Your task to perform on an android device: What's on my calendar for the rest of the month? Image 0: 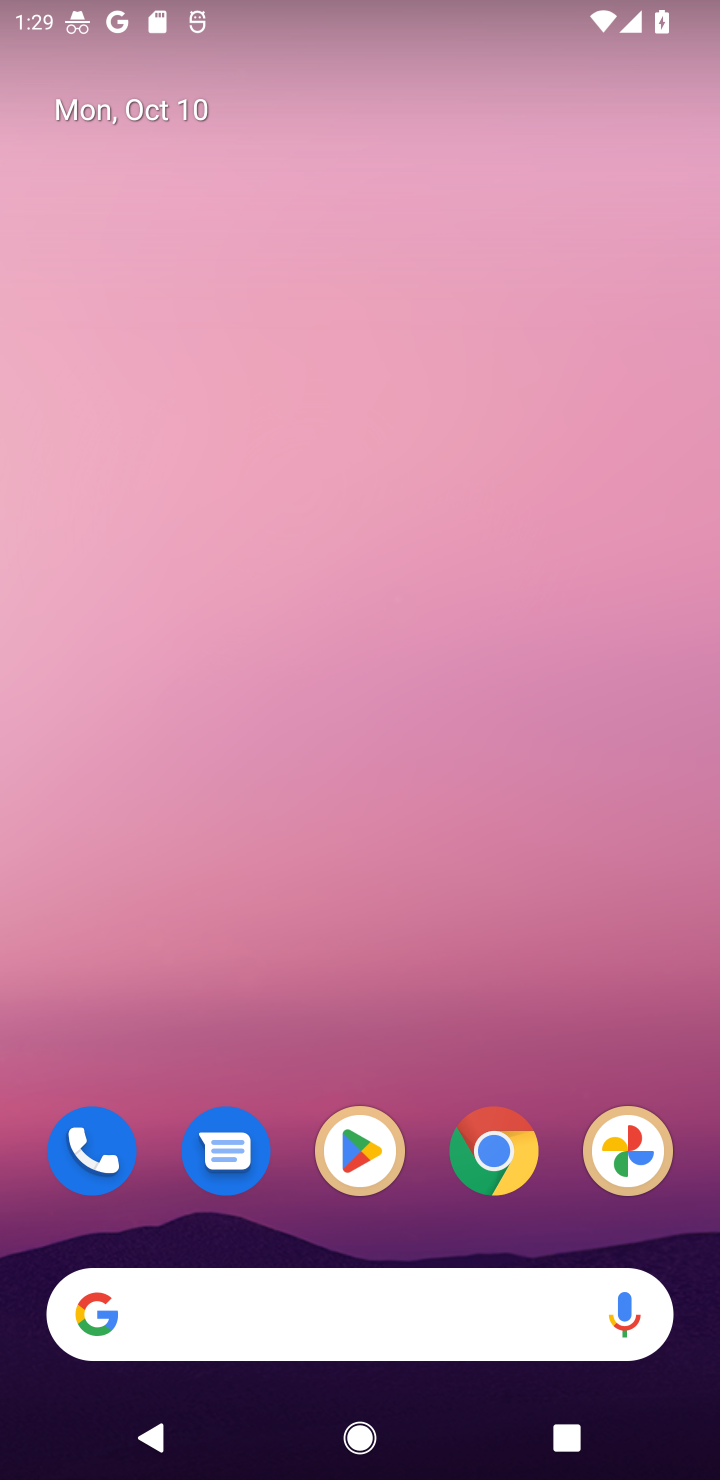
Step 0: drag from (311, 1236) to (311, 625)
Your task to perform on an android device: What's on my calendar for the rest of the month? Image 1: 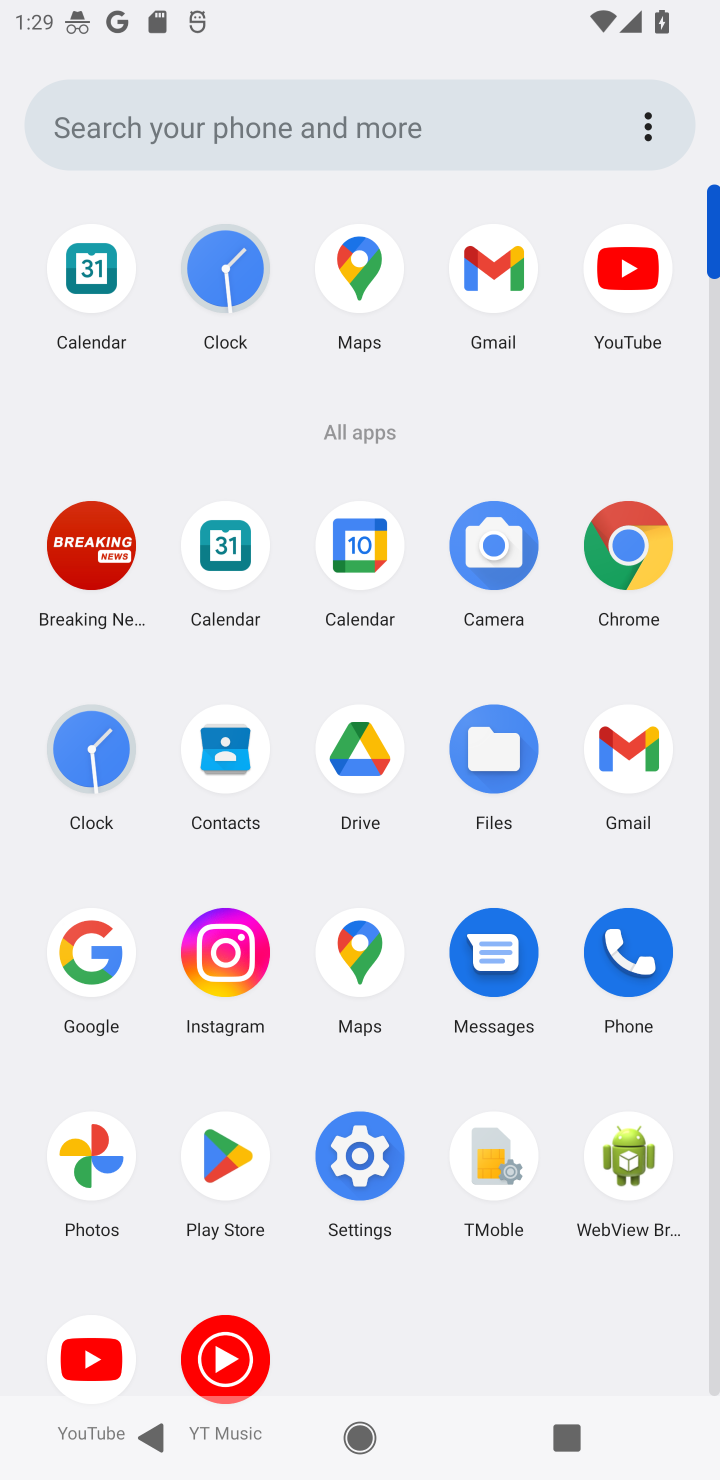
Step 1: click (363, 541)
Your task to perform on an android device: What's on my calendar for the rest of the month? Image 2: 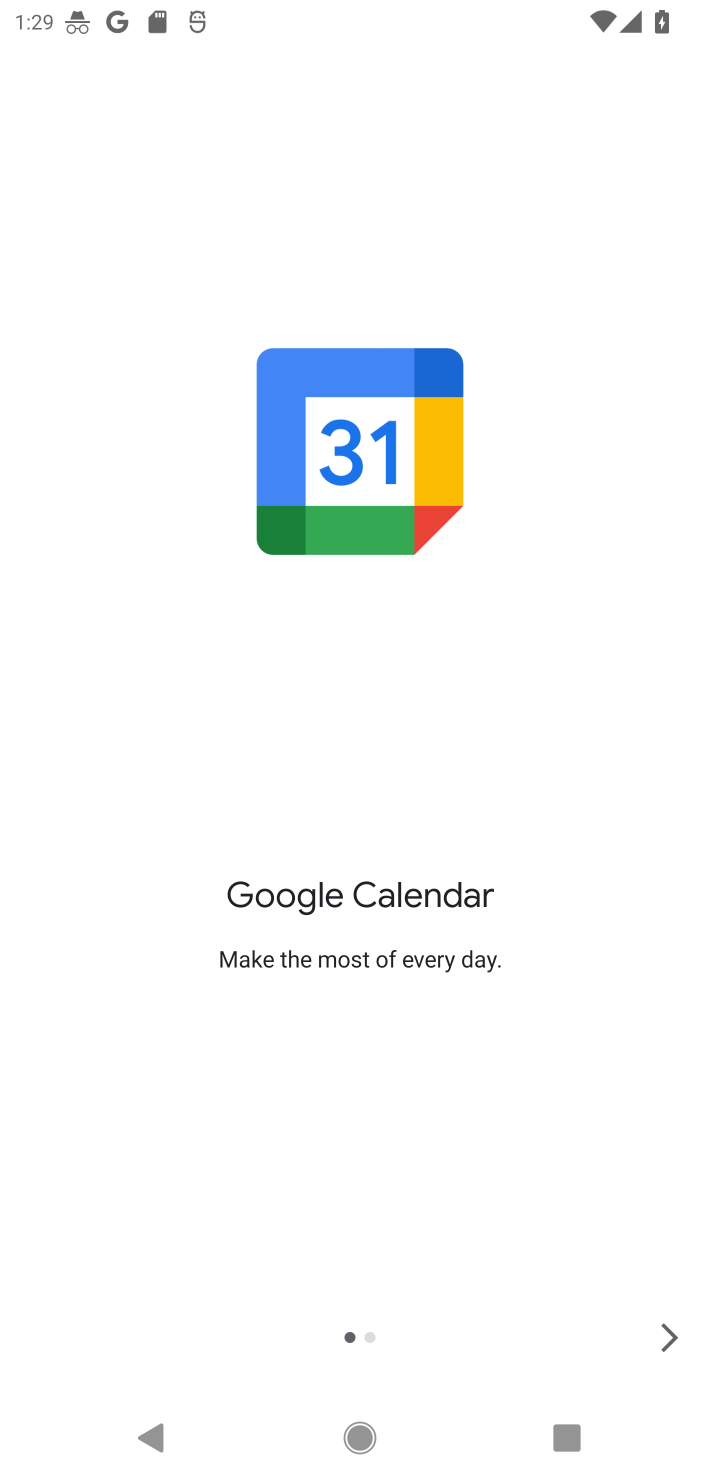
Step 2: click (668, 1339)
Your task to perform on an android device: What's on my calendar for the rest of the month? Image 3: 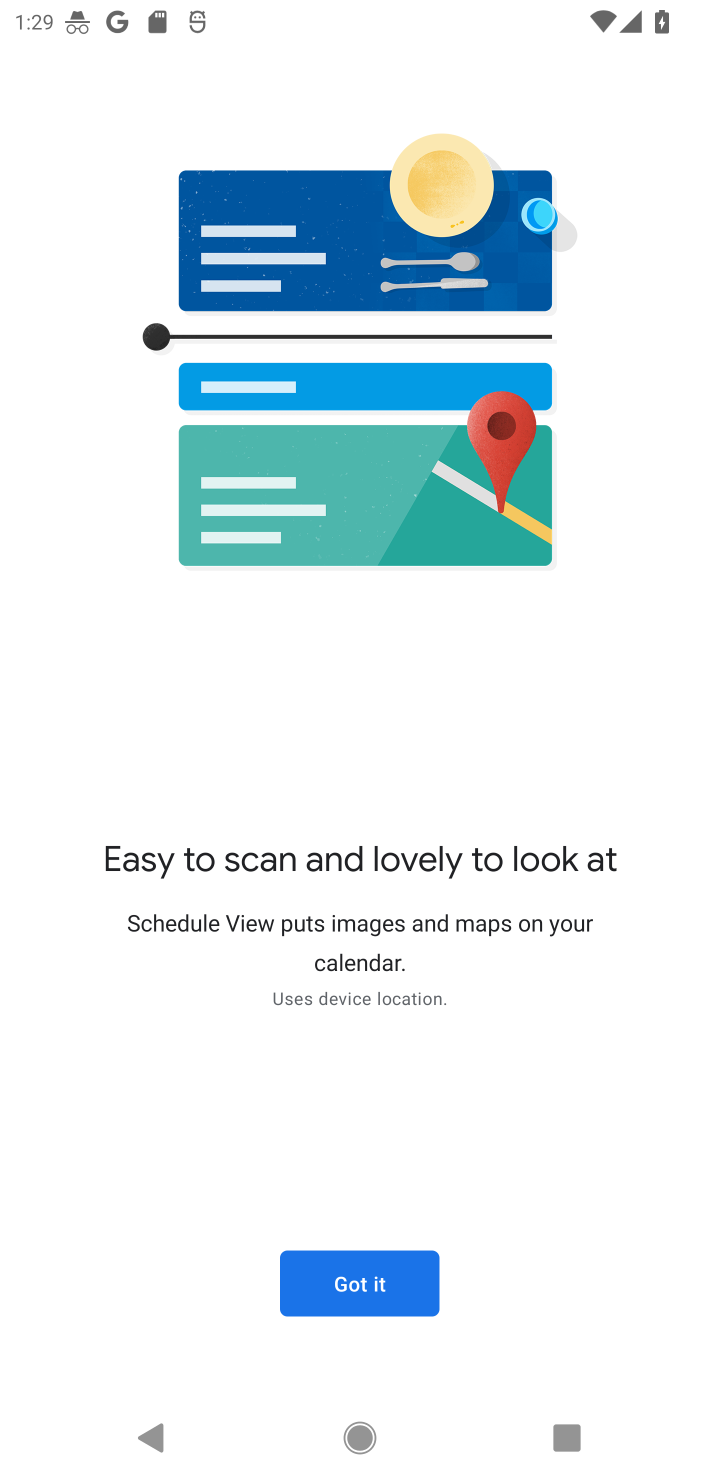
Step 3: click (341, 1284)
Your task to perform on an android device: What's on my calendar for the rest of the month? Image 4: 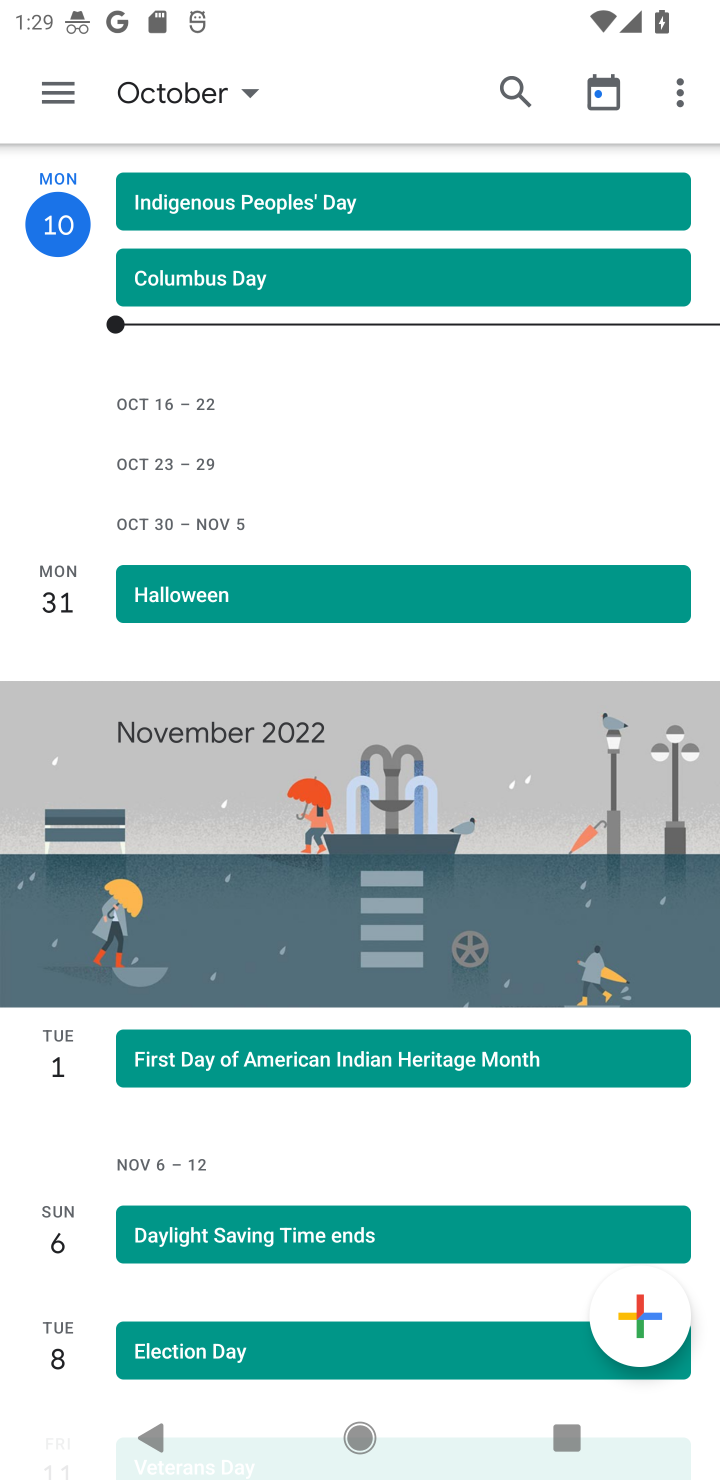
Step 4: click (245, 81)
Your task to perform on an android device: What's on my calendar for the rest of the month? Image 5: 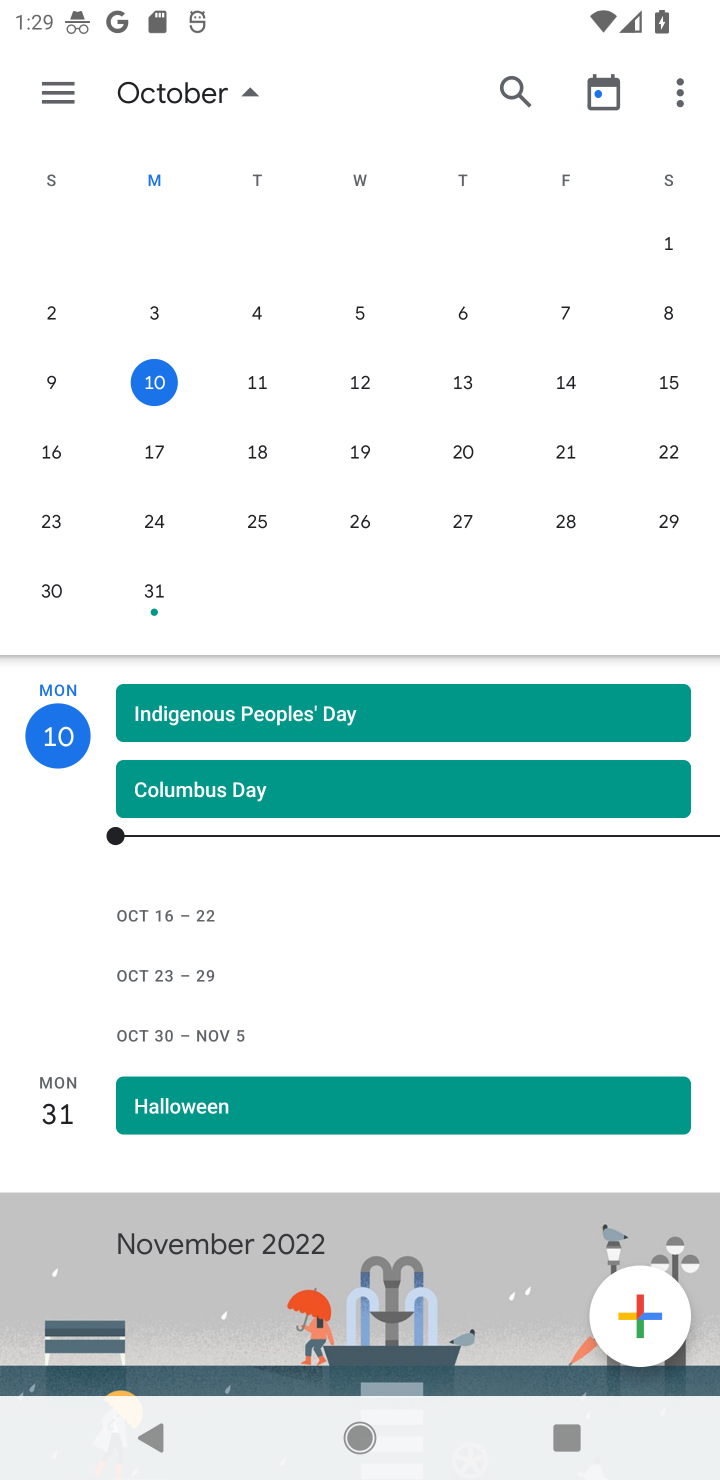
Step 5: task complete